Your task to perform on an android device: turn on translation in the chrome app Image 0: 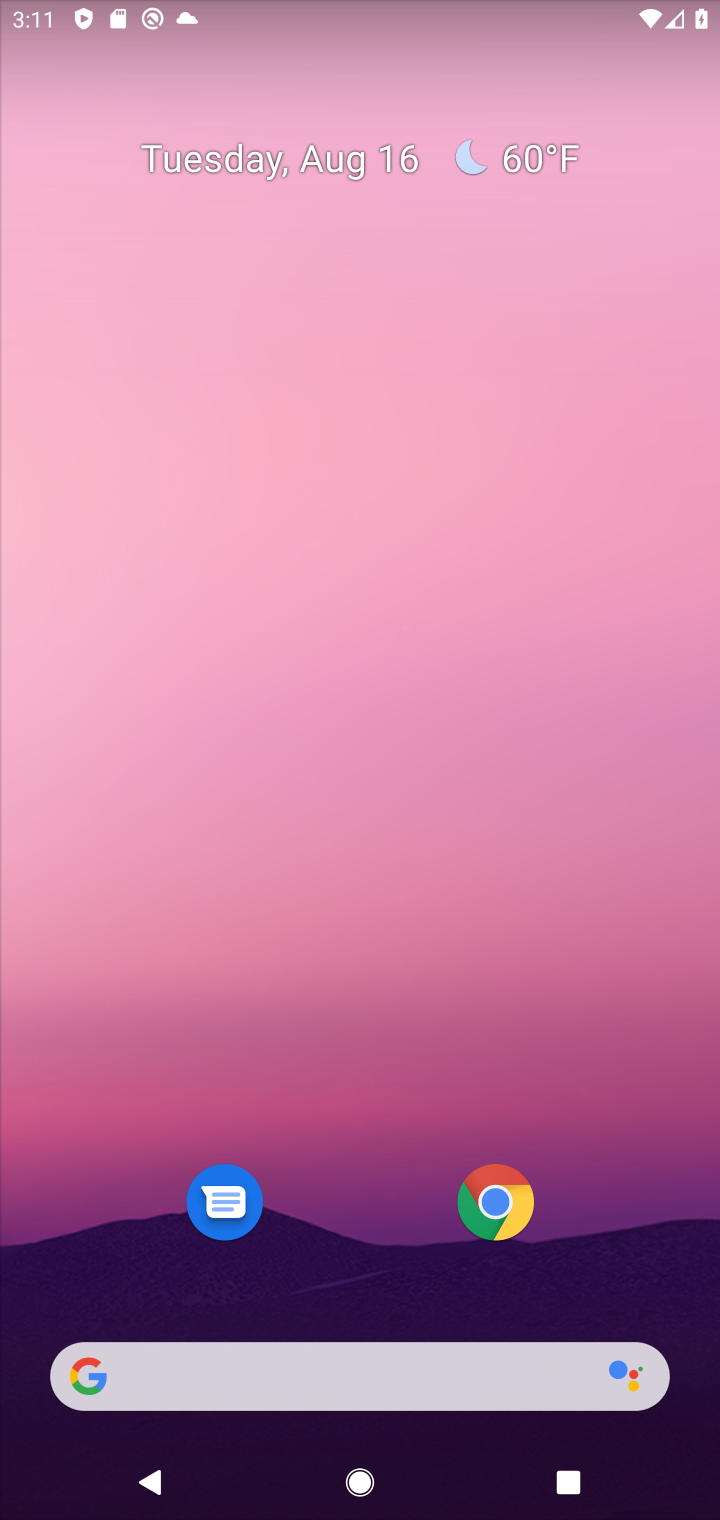
Step 0: press home button
Your task to perform on an android device: turn on translation in the chrome app Image 1: 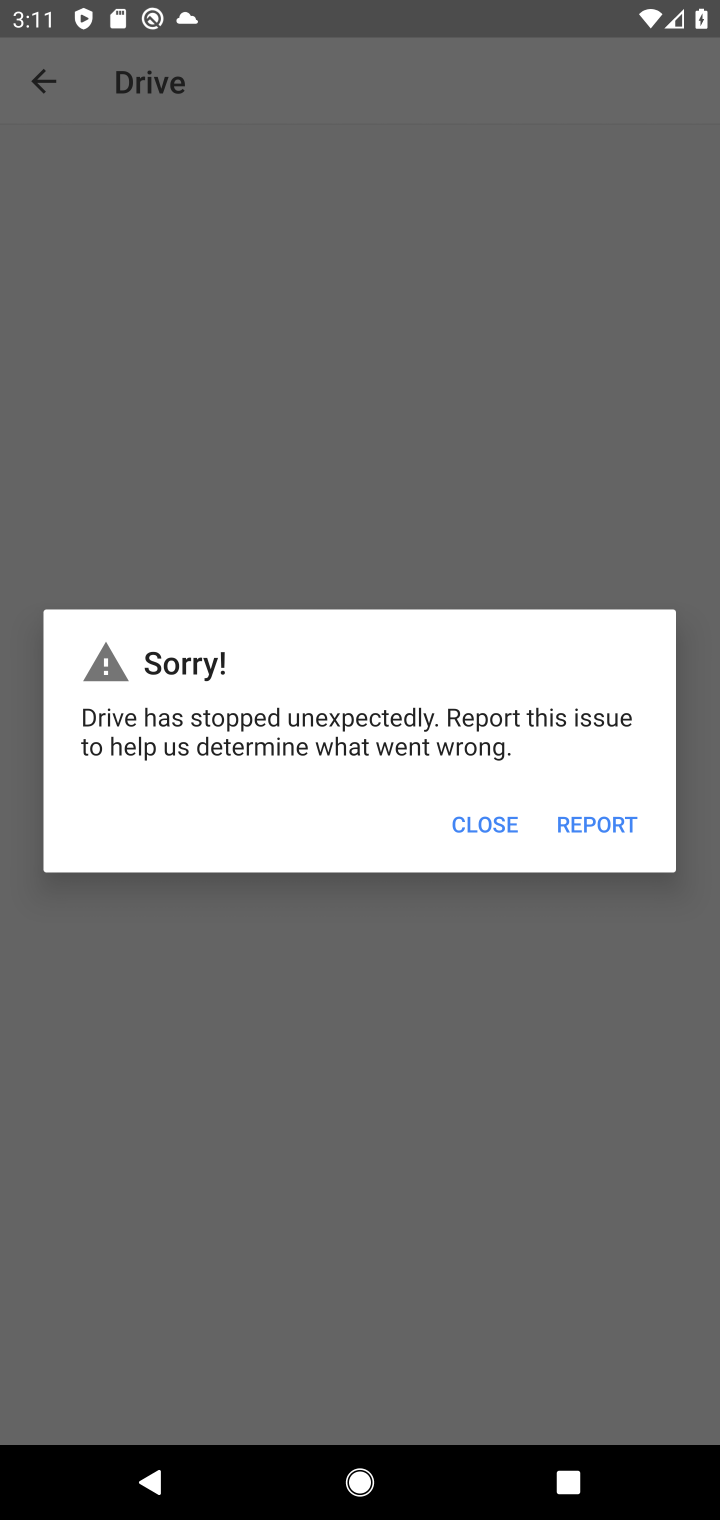
Step 1: click (480, 295)
Your task to perform on an android device: turn on translation in the chrome app Image 2: 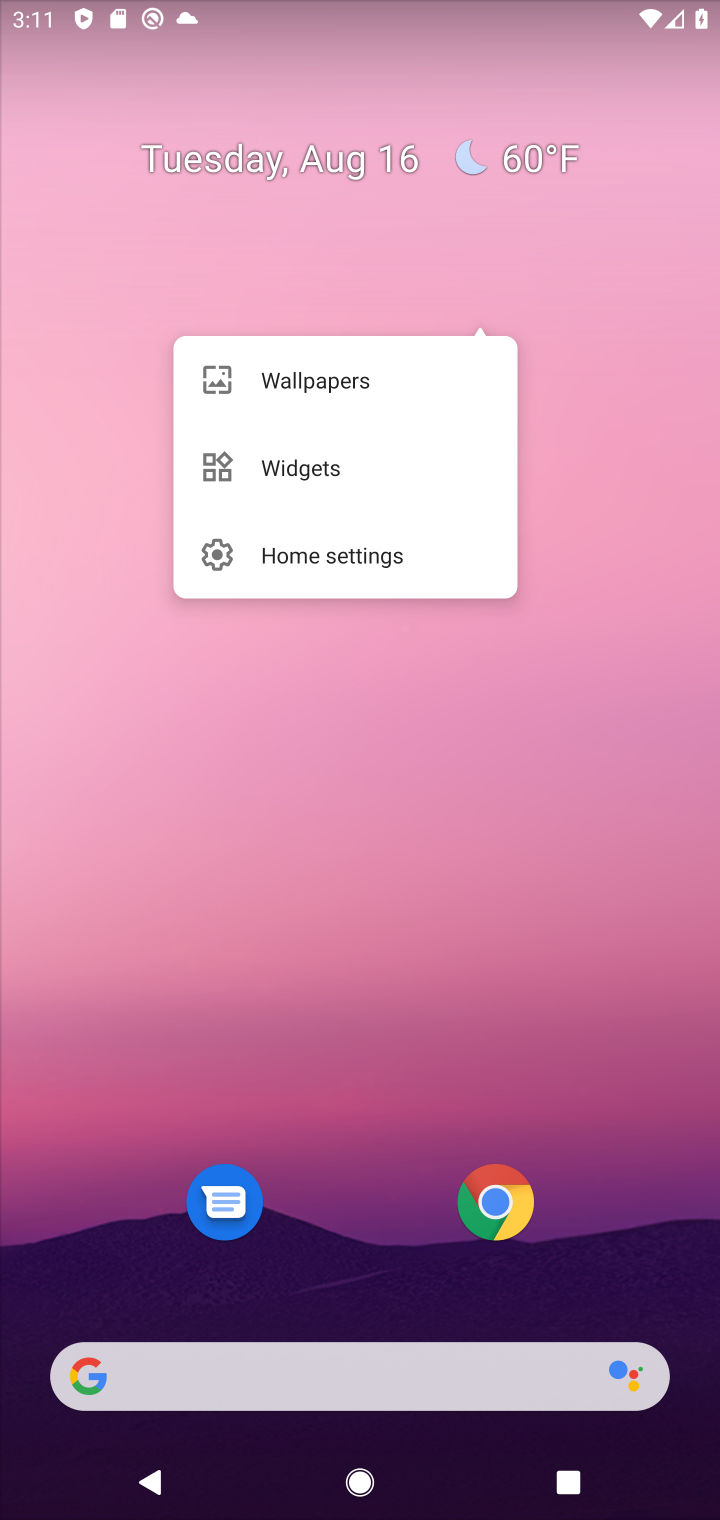
Step 2: click (347, 988)
Your task to perform on an android device: turn on translation in the chrome app Image 3: 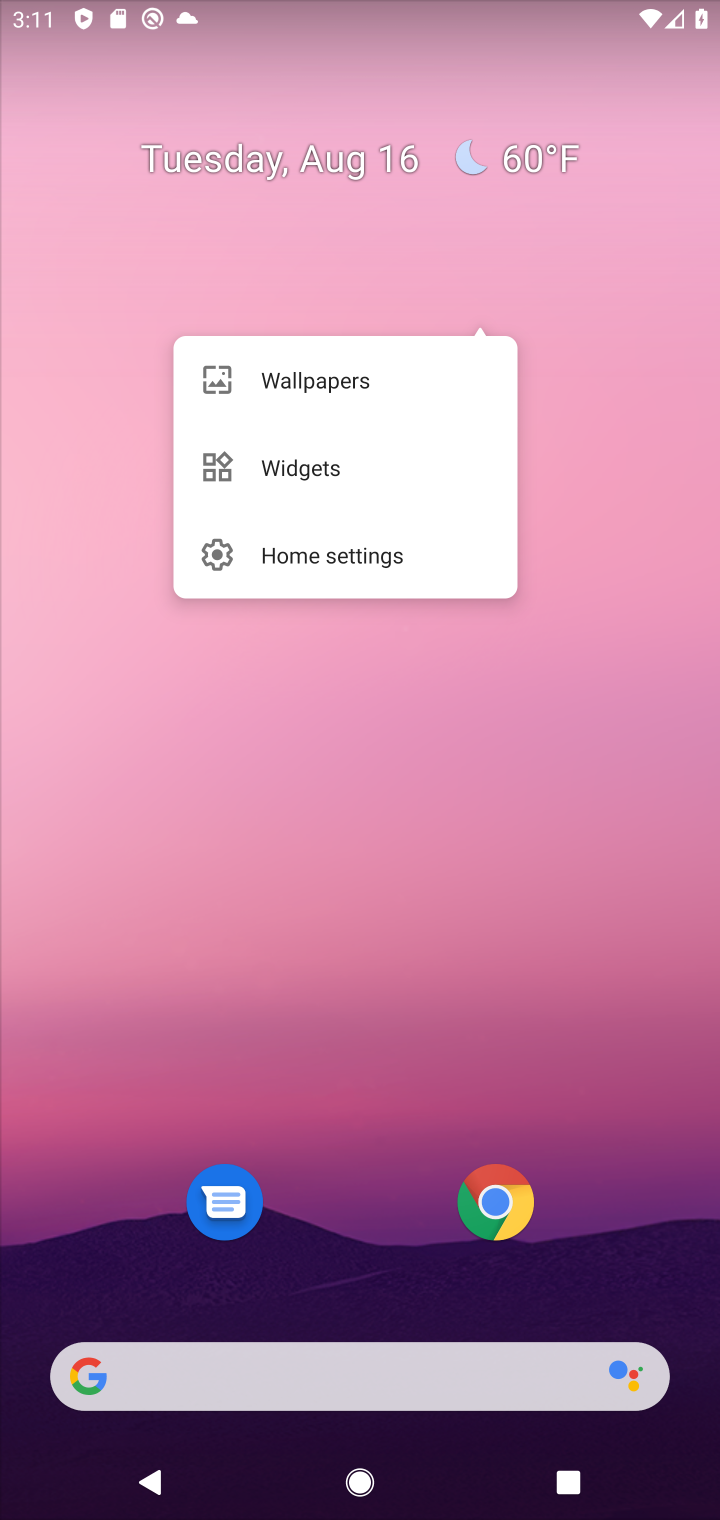
Step 3: drag from (377, 995) to (445, 106)
Your task to perform on an android device: turn on translation in the chrome app Image 4: 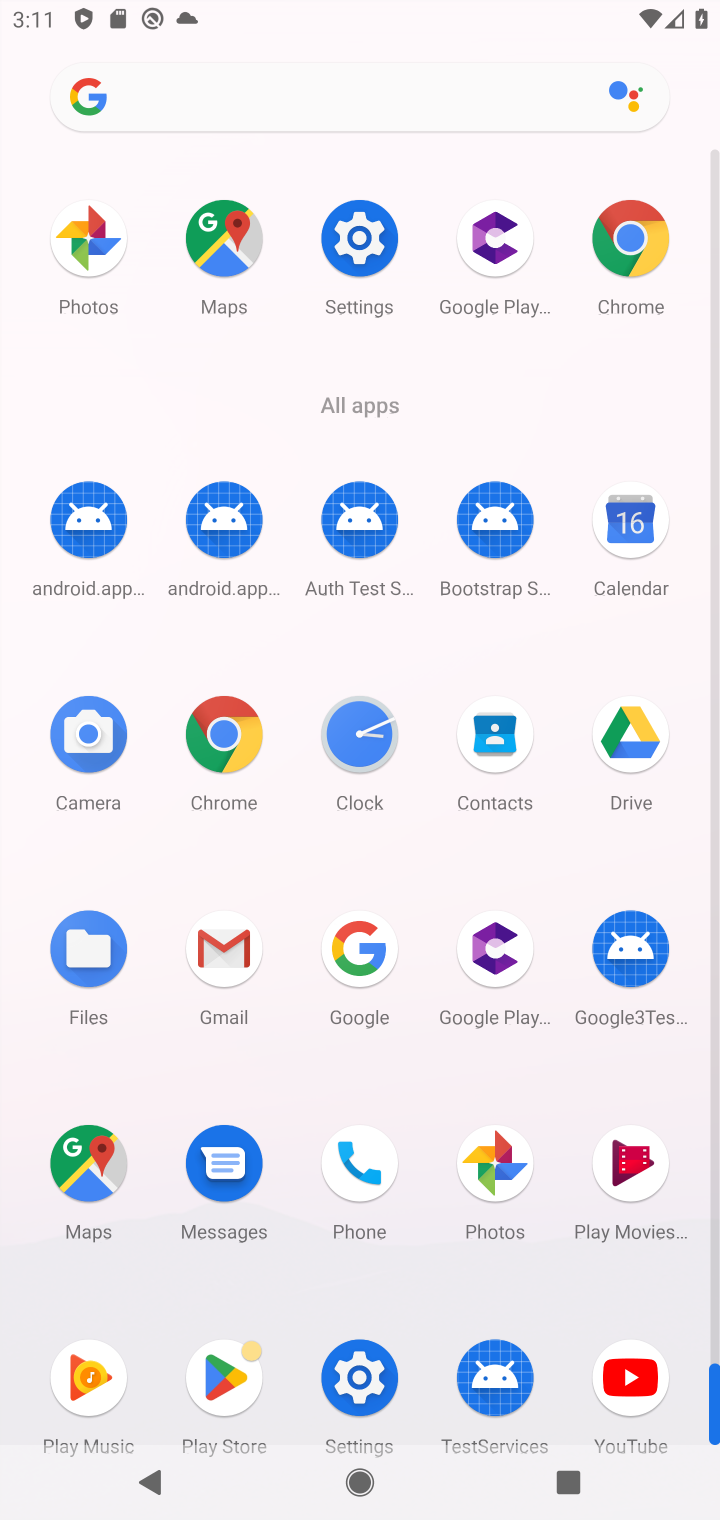
Step 4: click (226, 781)
Your task to perform on an android device: turn on translation in the chrome app Image 5: 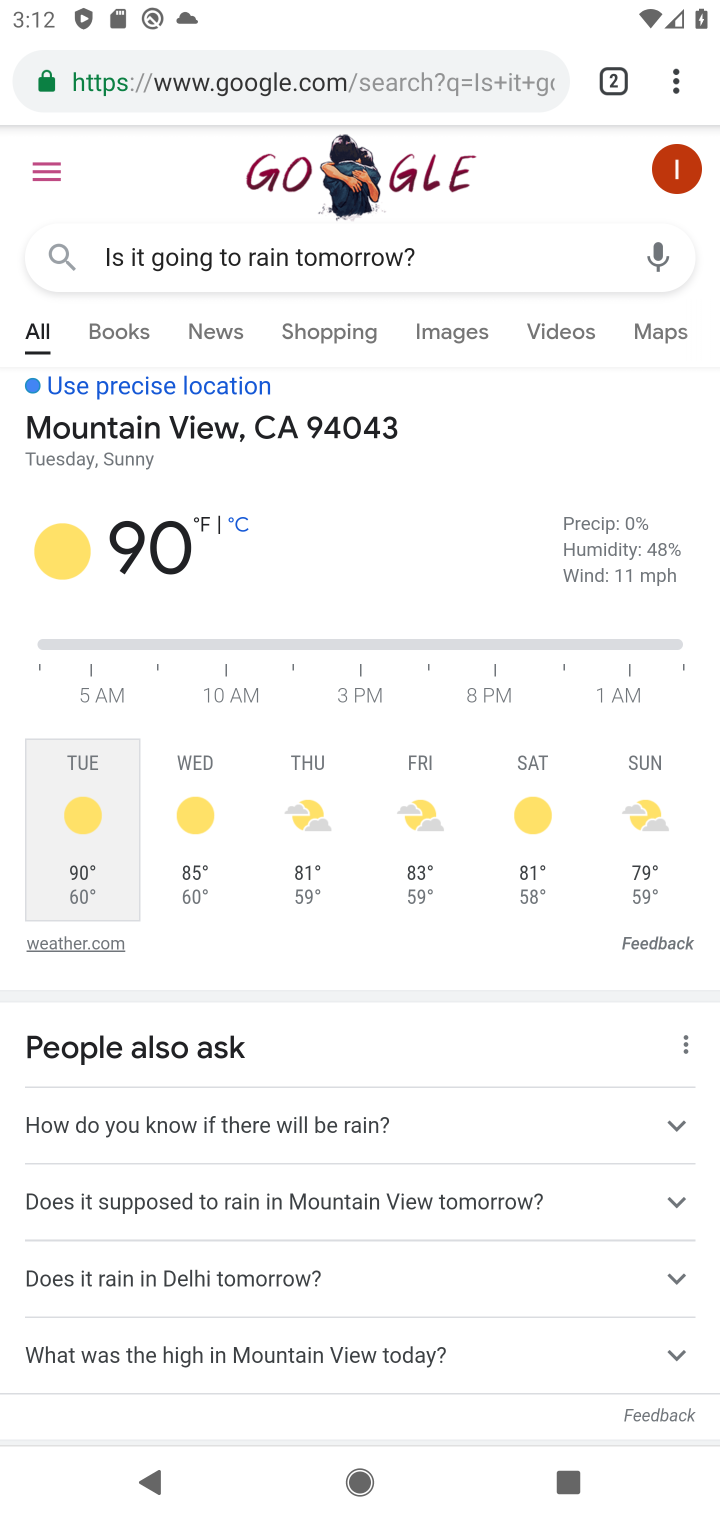
Step 5: task complete